Your task to perform on an android device: Search for macbook on target.com, select the first entry, add it to the cart, then select checkout. Image 0: 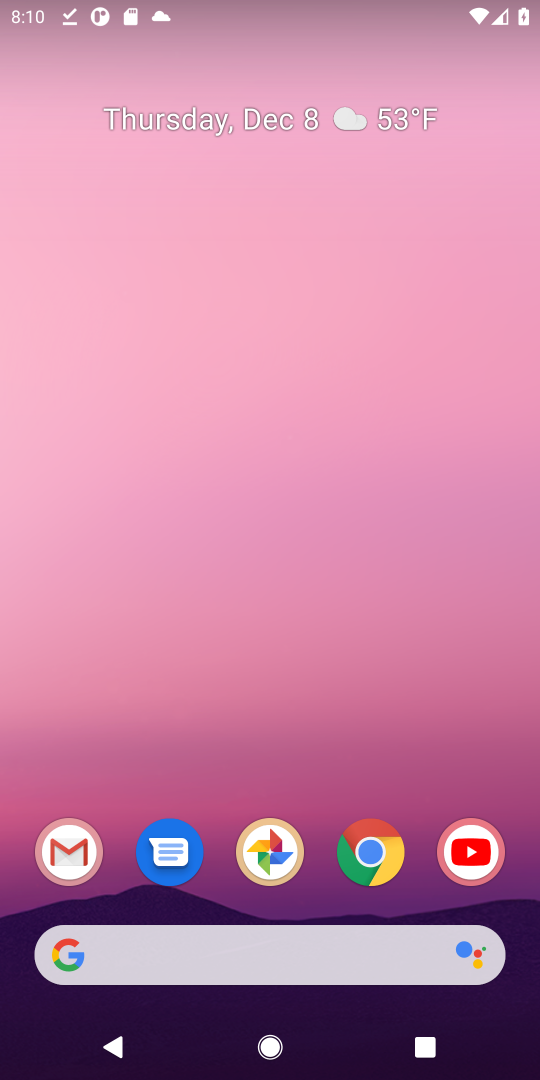
Step 0: click (215, 953)
Your task to perform on an android device: Search for macbook on target.com, select the first entry, add it to the cart, then select checkout. Image 1: 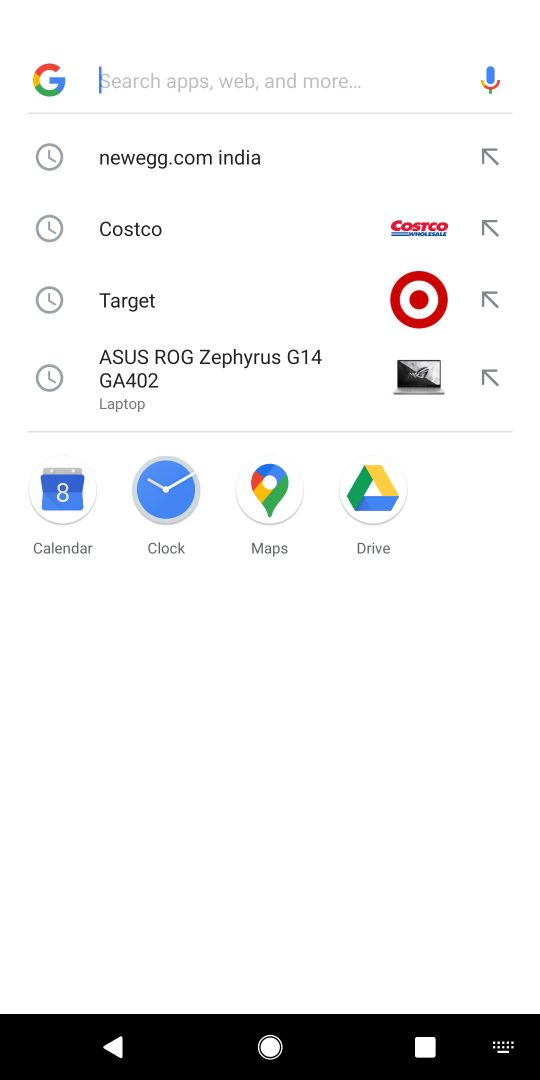
Step 1: type "target.com"
Your task to perform on an android device: Search for macbook on target.com, select the first entry, add it to the cart, then select checkout. Image 2: 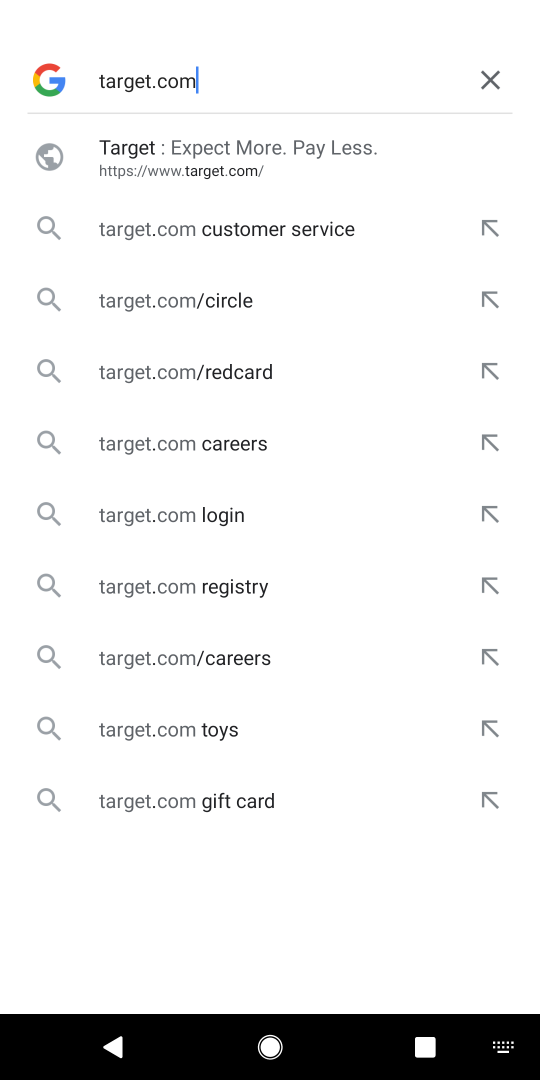
Step 2: click (154, 167)
Your task to perform on an android device: Search for macbook on target.com, select the first entry, add it to the cart, then select checkout. Image 3: 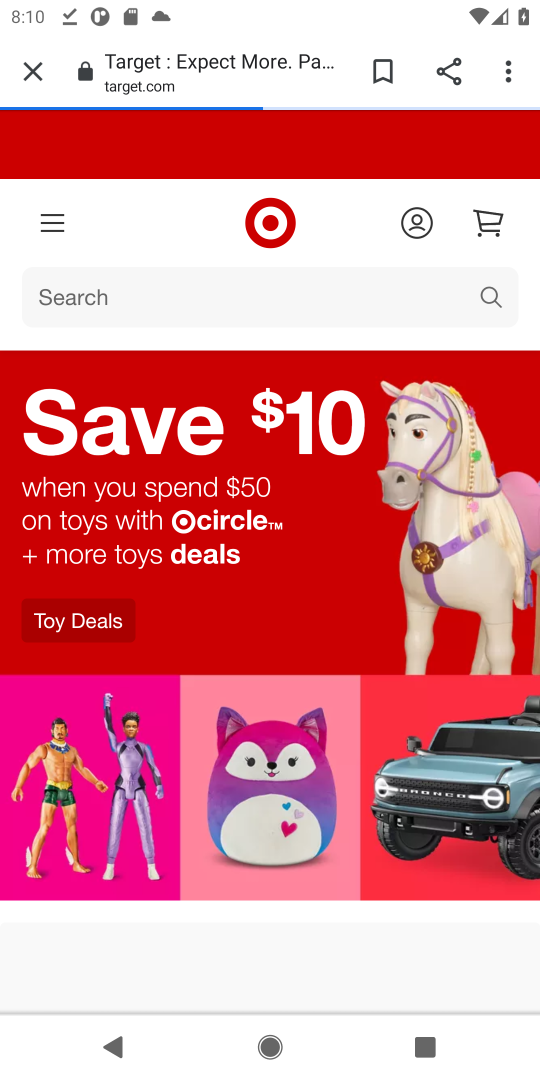
Step 3: click (180, 309)
Your task to perform on an android device: Search for macbook on target.com, select the first entry, add it to the cart, then select checkout. Image 4: 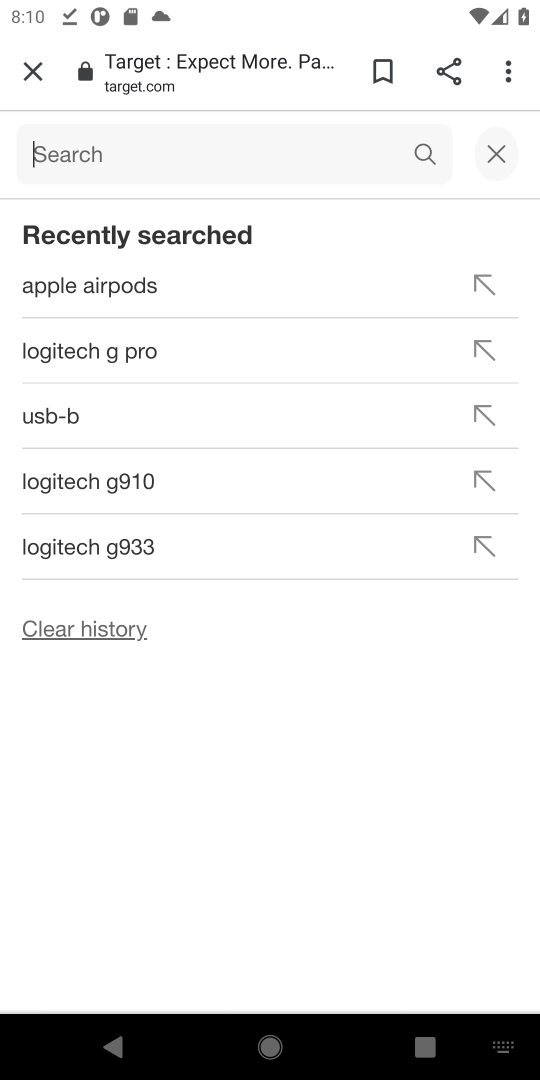
Step 4: type "macbook"
Your task to perform on an android device: Search for macbook on target.com, select the first entry, add it to the cart, then select checkout. Image 5: 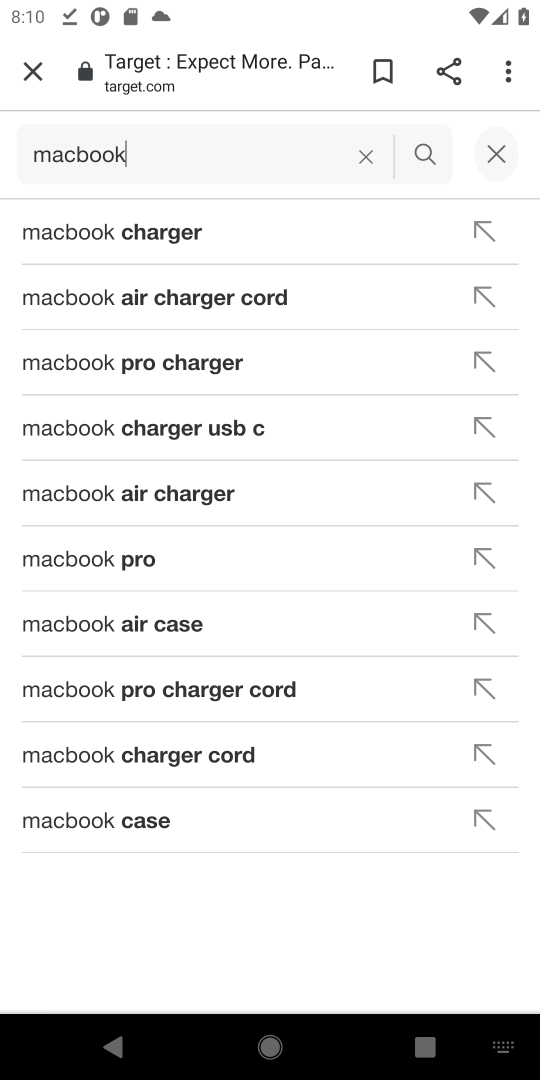
Step 5: click (122, 239)
Your task to perform on an android device: Search for macbook on target.com, select the first entry, add it to the cart, then select checkout. Image 6: 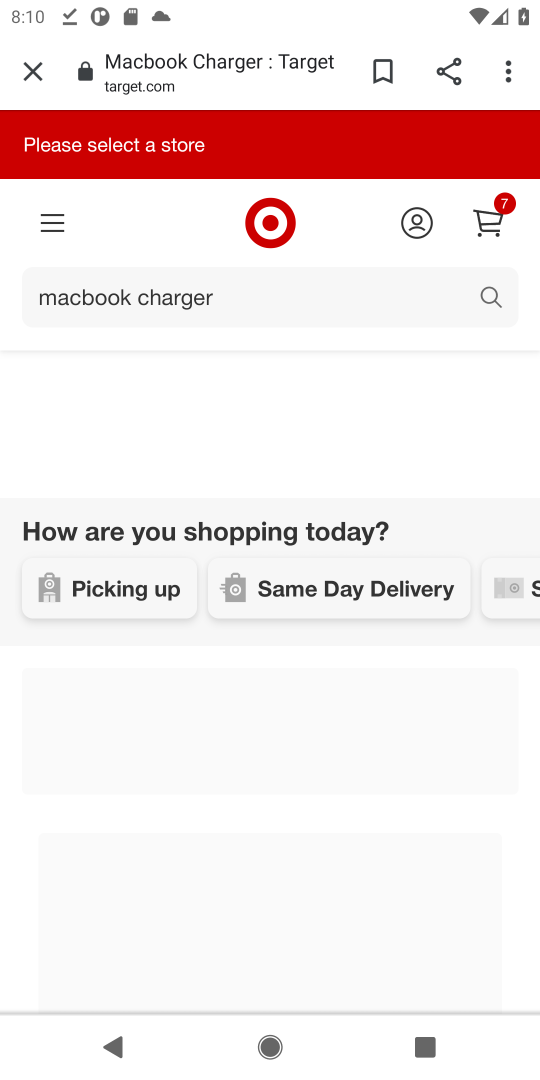
Step 6: task complete